Your task to perform on an android device: Google the capital of Venezuela Image 0: 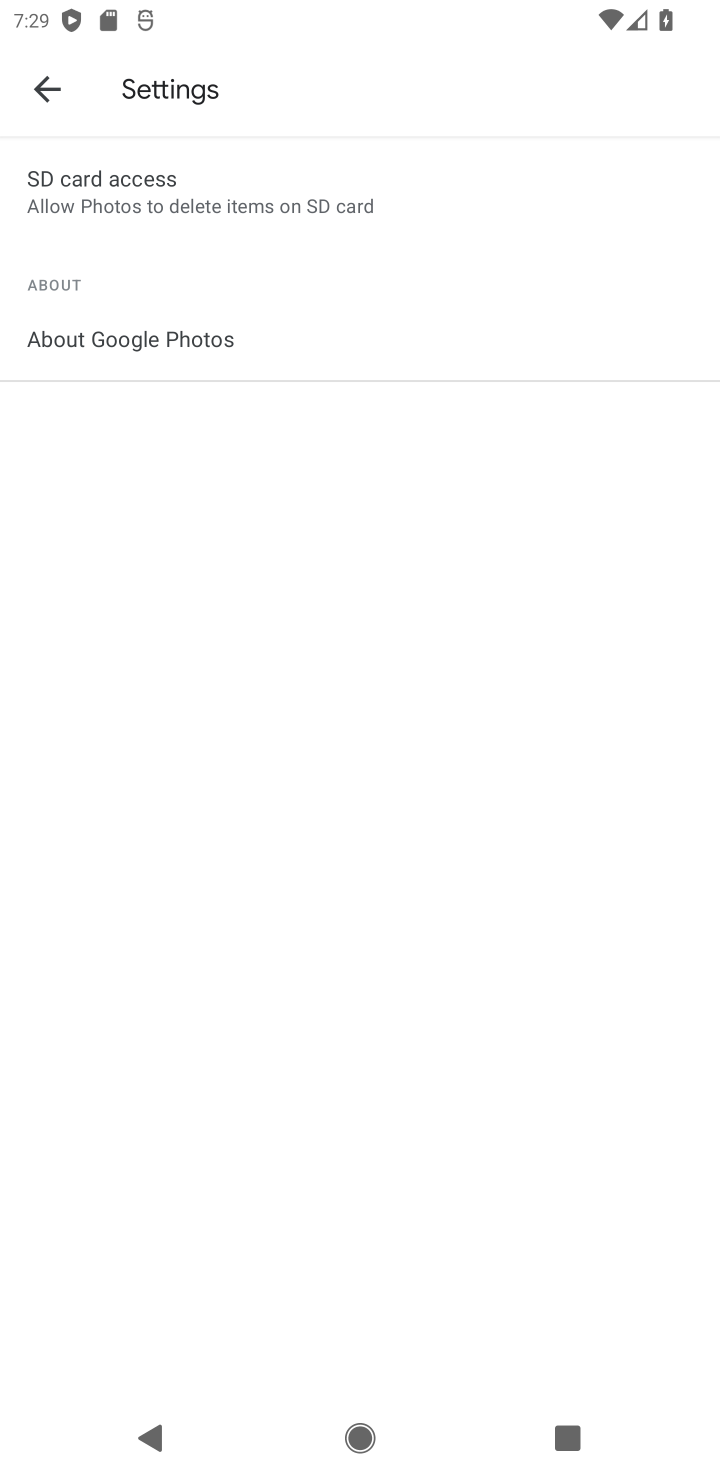
Step 0: press home button
Your task to perform on an android device: Google the capital of Venezuela Image 1: 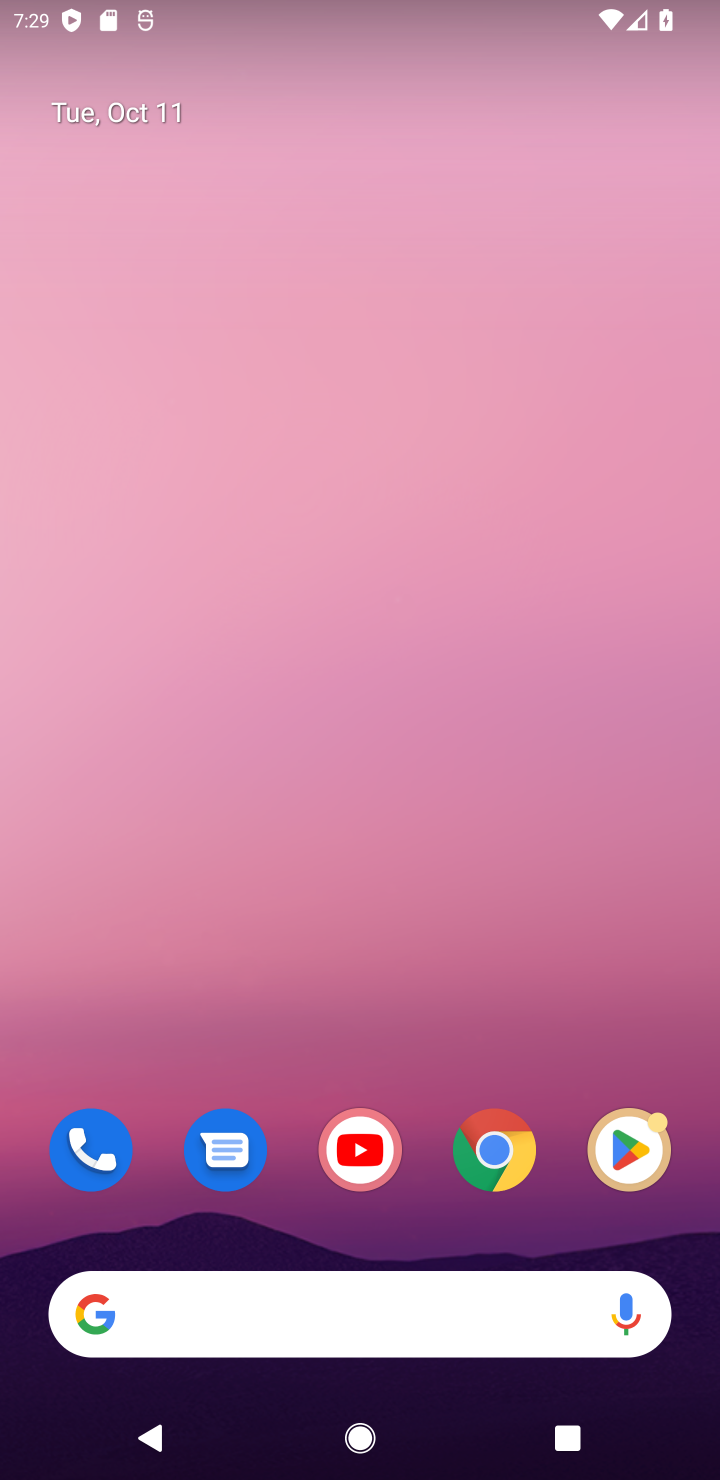
Step 1: click (313, 1307)
Your task to perform on an android device: Google the capital of Venezuela Image 2: 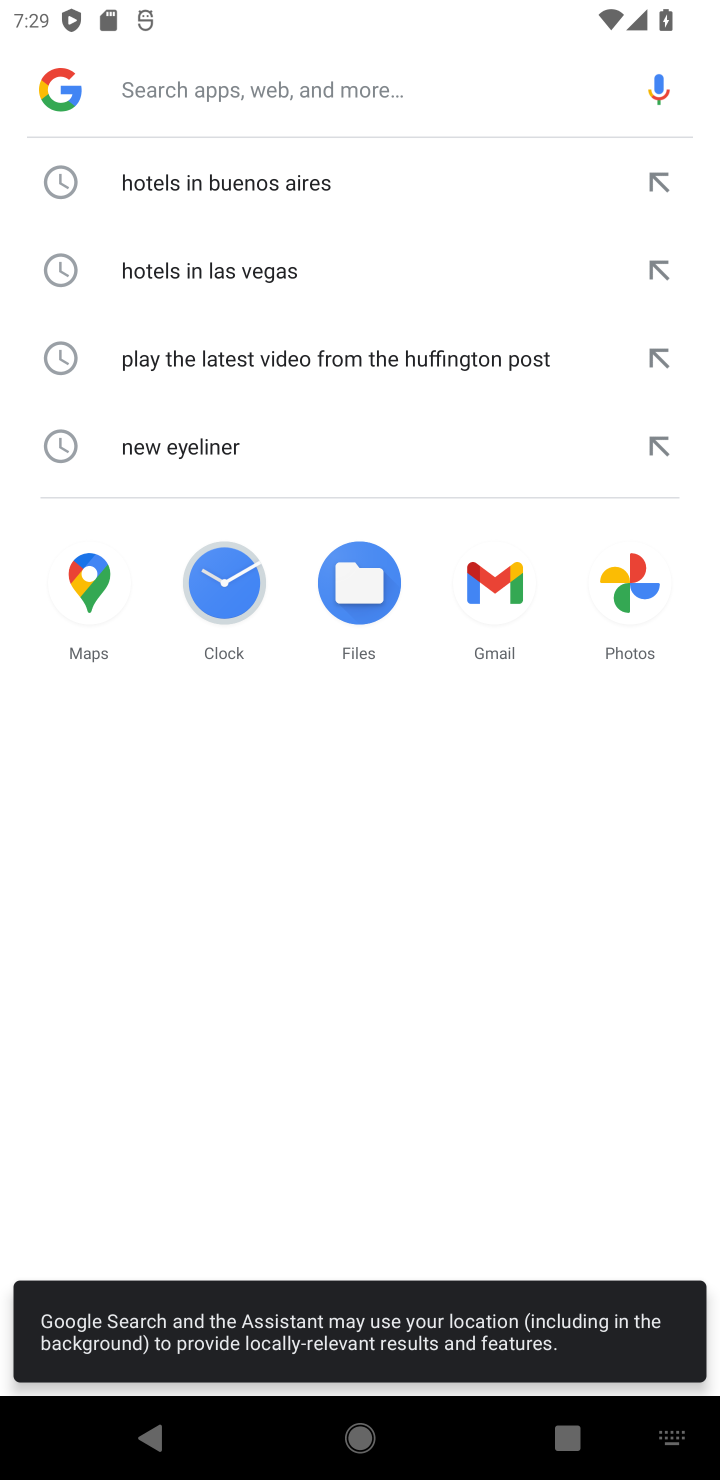
Step 2: click (226, 84)
Your task to perform on an android device: Google the capital of Venezuela Image 3: 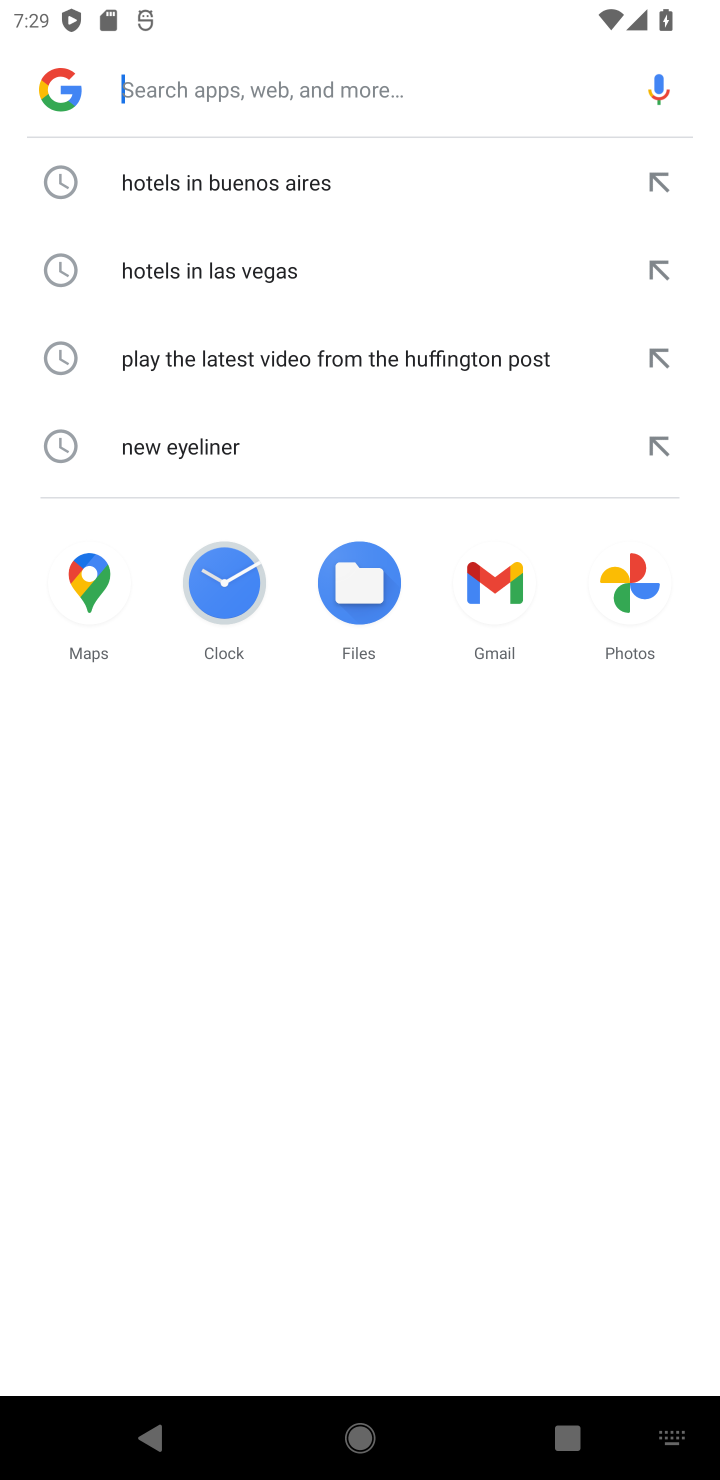
Step 3: type " capital of Venezuela"
Your task to perform on an android device: Google the capital of Venezuela Image 4: 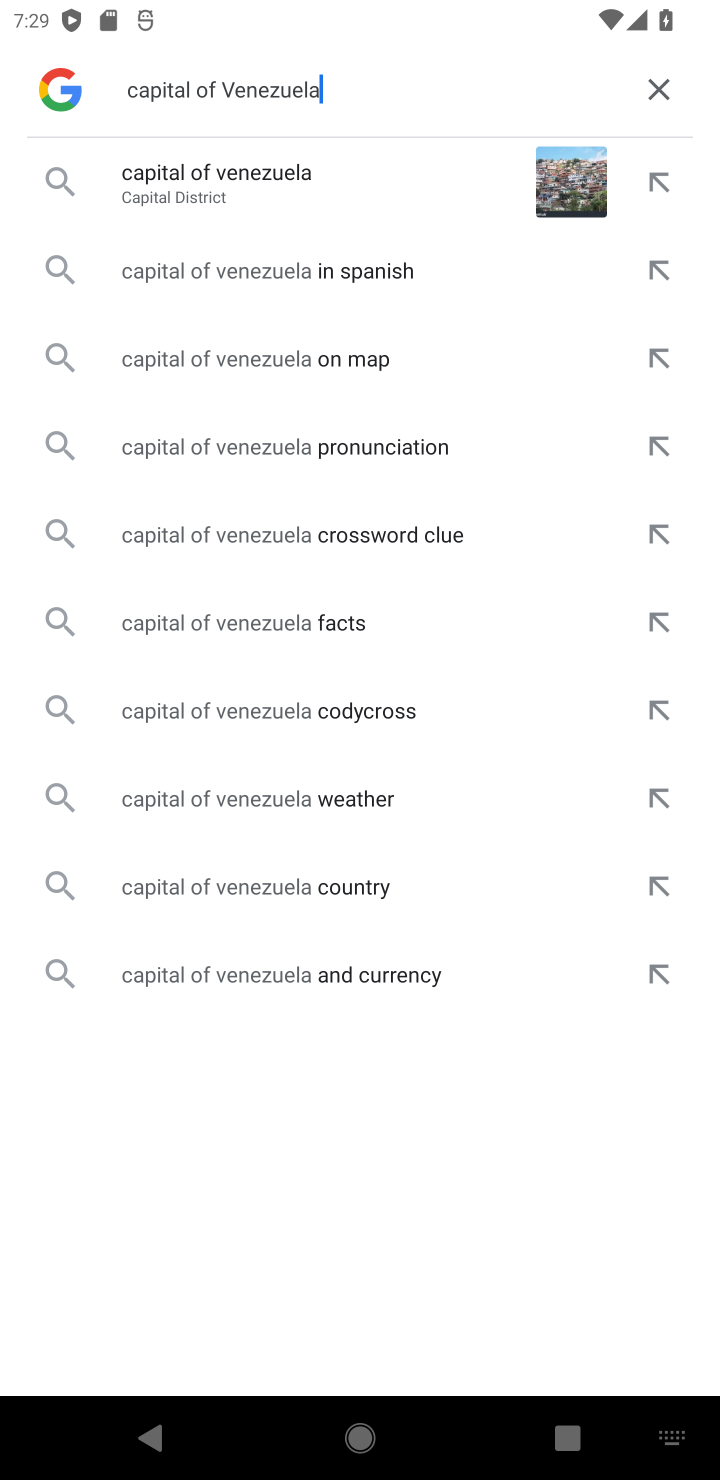
Step 4: click (170, 194)
Your task to perform on an android device: Google the capital of Venezuela Image 5: 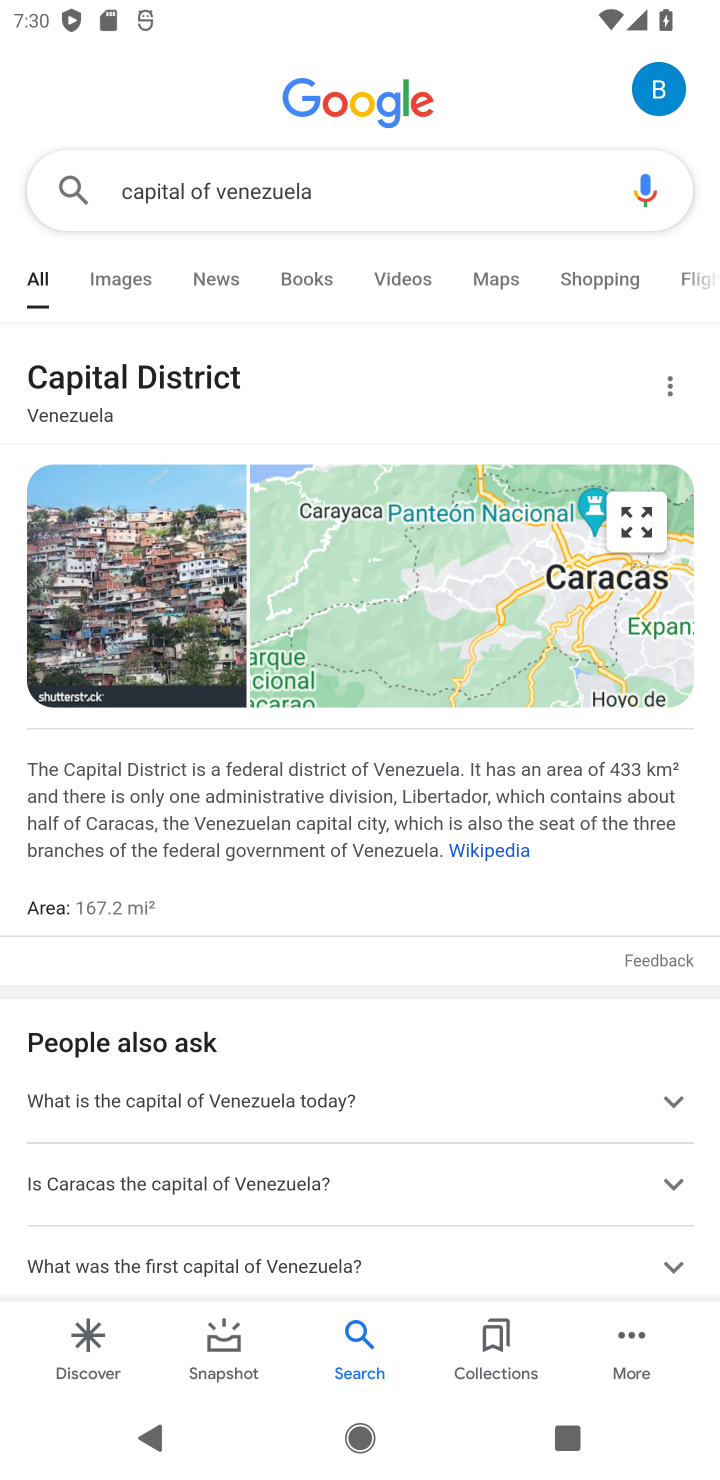
Step 5: task complete